Your task to perform on an android device: allow cookies in the chrome app Image 0: 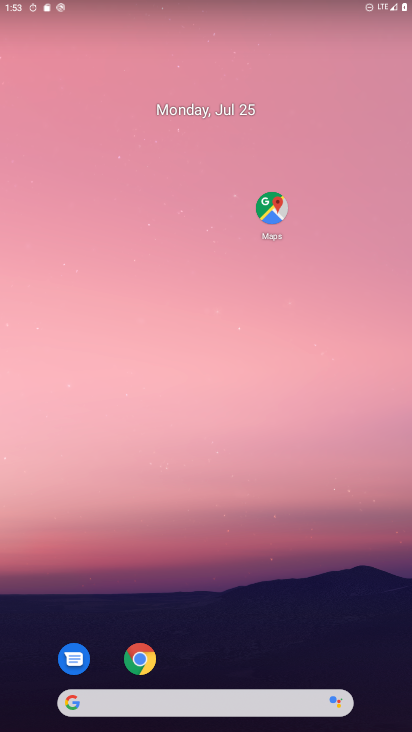
Step 0: click (141, 648)
Your task to perform on an android device: allow cookies in the chrome app Image 1: 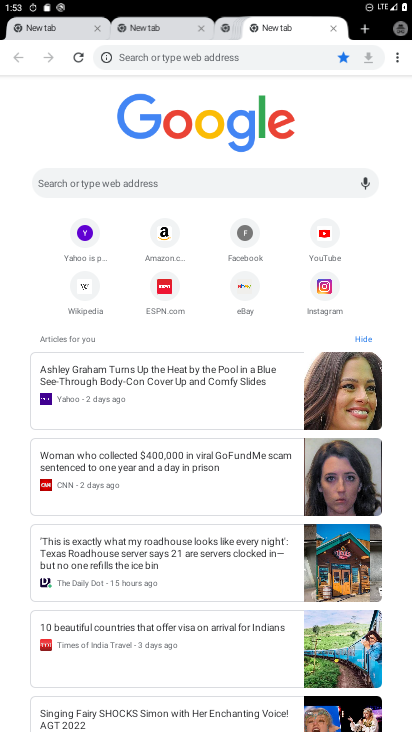
Step 1: click (397, 55)
Your task to perform on an android device: allow cookies in the chrome app Image 2: 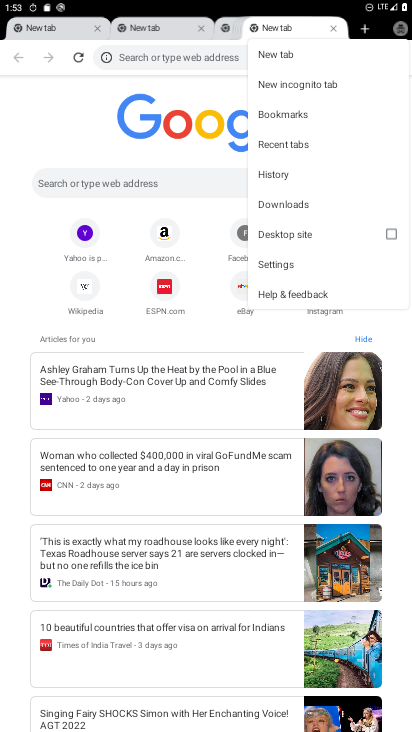
Step 2: click (280, 260)
Your task to perform on an android device: allow cookies in the chrome app Image 3: 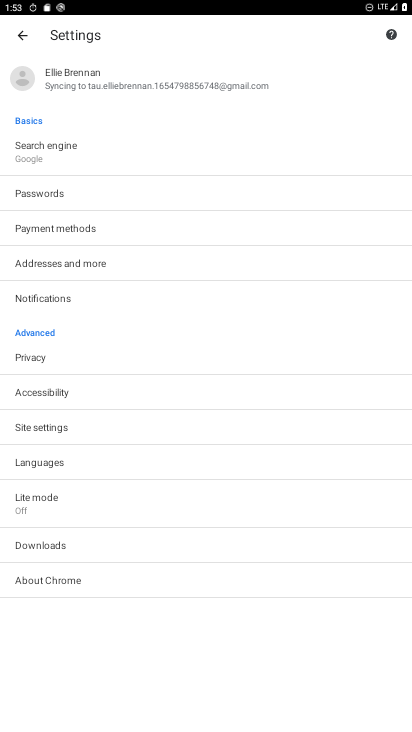
Step 3: click (52, 425)
Your task to perform on an android device: allow cookies in the chrome app Image 4: 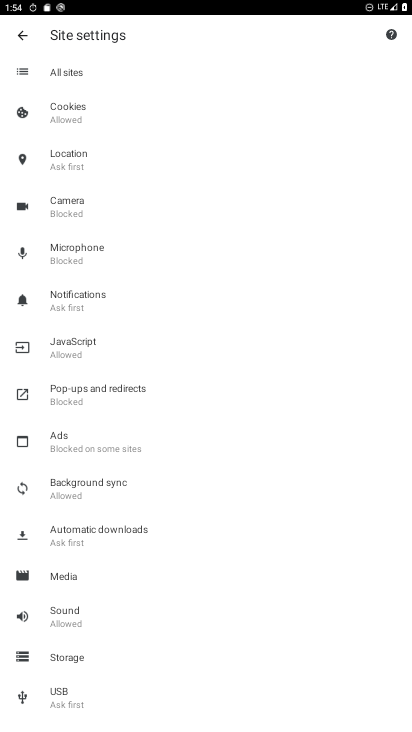
Step 4: click (75, 101)
Your task to perform on an android device: allow cookies in the chrome app Image 5: 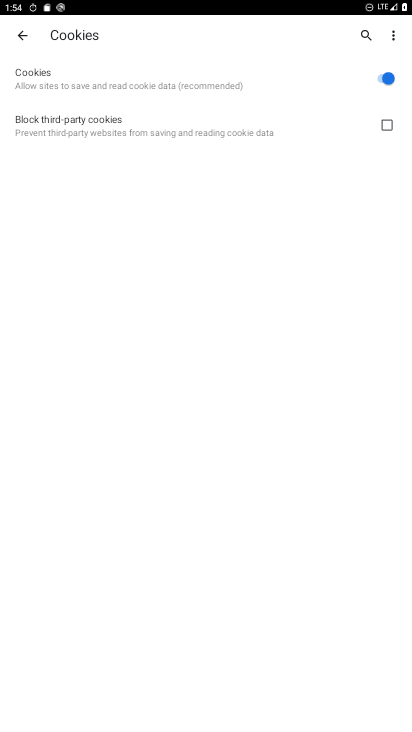
Step 5: task complete